Your task to perform on an android device: turn off notifications in google photos Image 0: 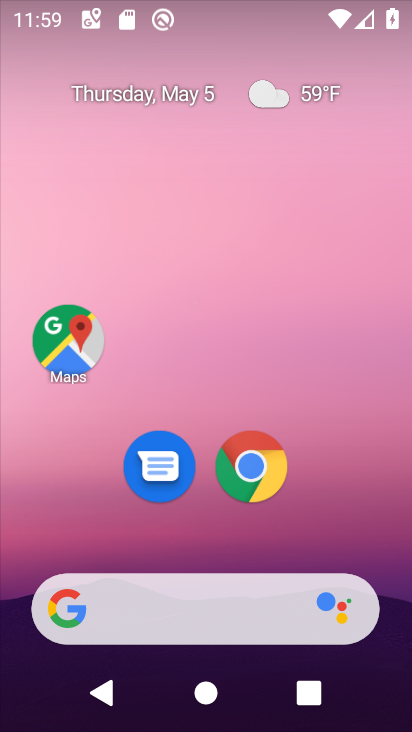
Step 0: drag from (366, 546) to (305, 287)
Your task to perform on an android device: turn off notifications in google photos Image 1: 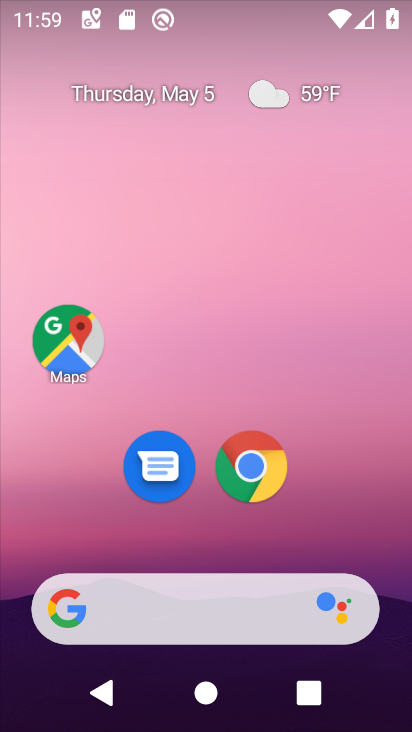
Step 1: drag from (386, 506) to (308, 242)
Your task to perform on an android device: turn off notifications in google photos Image 2: 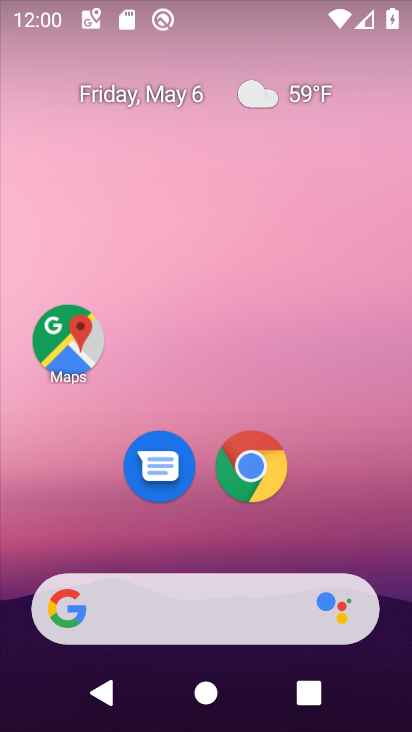
Step 2: drag from (398, 596) to (341, 162)
Your task to perform on an android device: turn off notifications in google photos Image 3: 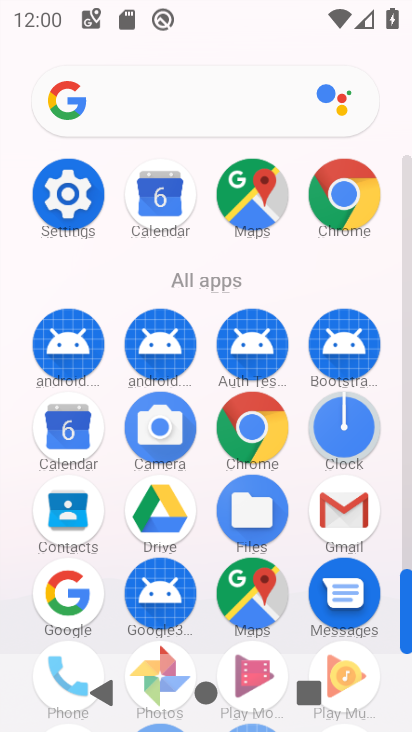
Step 3: click (151, 648)
Your task to perform on an android device: turn off notifications in google photos Image 4: 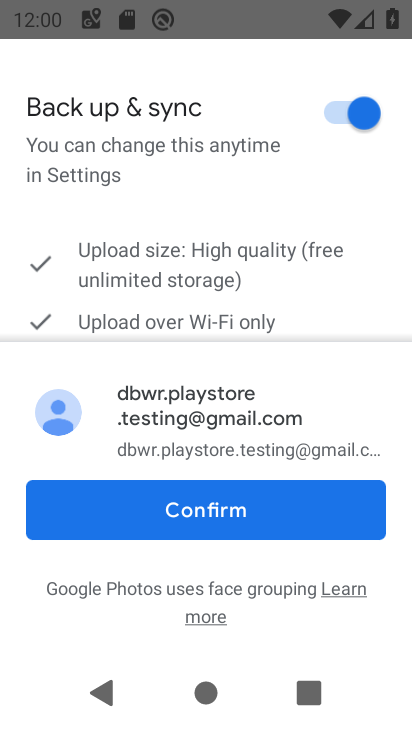
Step 4: click (259, 509)
Your task to perform on an android device: turn off notifications in google photos Image 5: 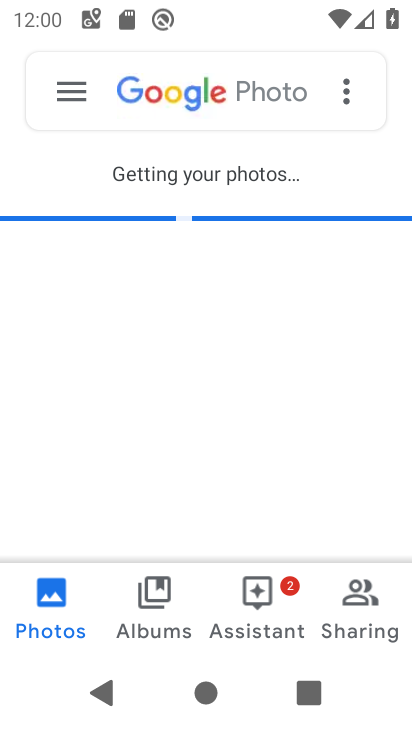
Step 5: click (76, 91)
Your task to perform on an android device: turn off notifications in google photos Image 6: 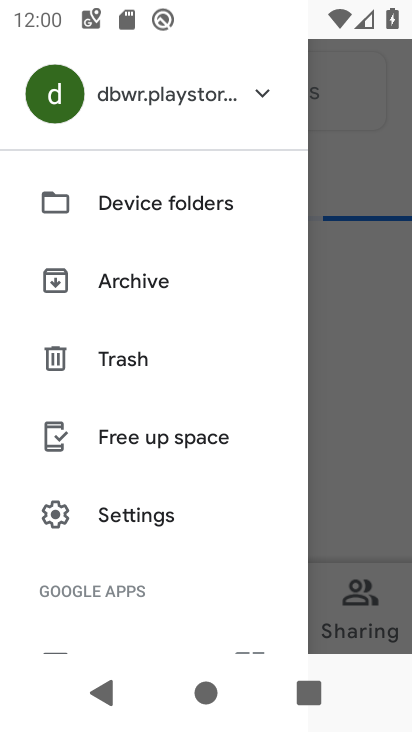
Step 6: click (160, 510)
Your task to perform on an android device: turn off notifications in google photos Image 7: 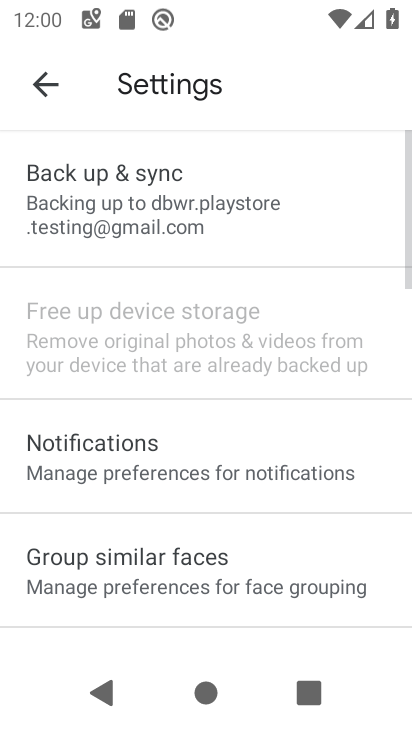
Step 7: click (211, 448)
Your task to perform on an android device: turn off notifications in google photos Image 8: 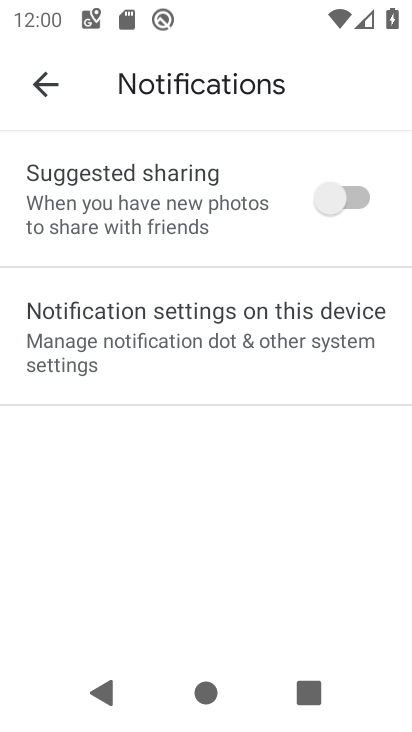
Step 8: click (302, 342)
Your task to perform on an android device: turn off notifications in google photos Image 9: 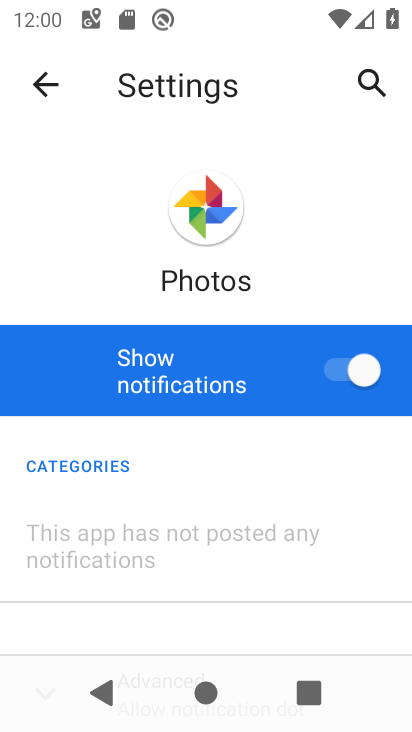
Step 9: drag from (312, 442) to (267, 281)
Your task to perform on an android device: turn off notifications in google photos Image 10: 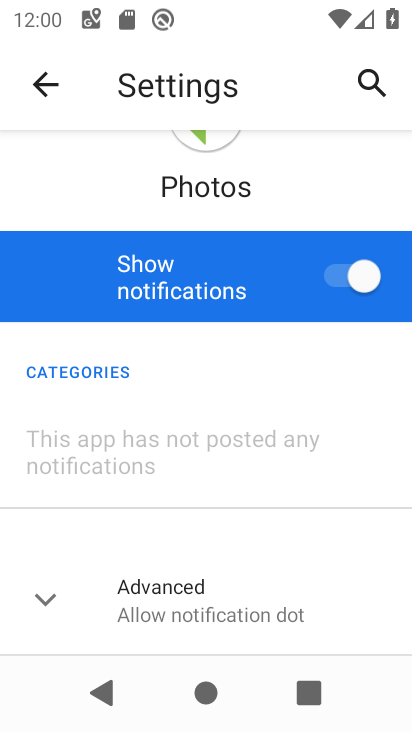
Step 10: click (340, 268)
Your task to perform on an android device: turn off notifications in google photos Image 11: 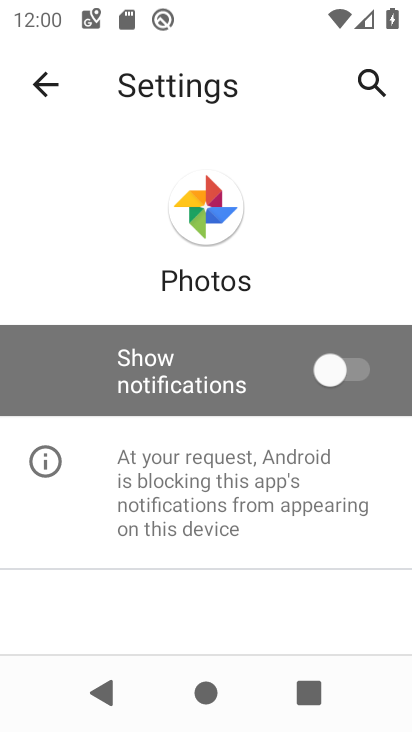
Step 11: task complete